Your task to perform on an android device: Open privacy settings Image 0: 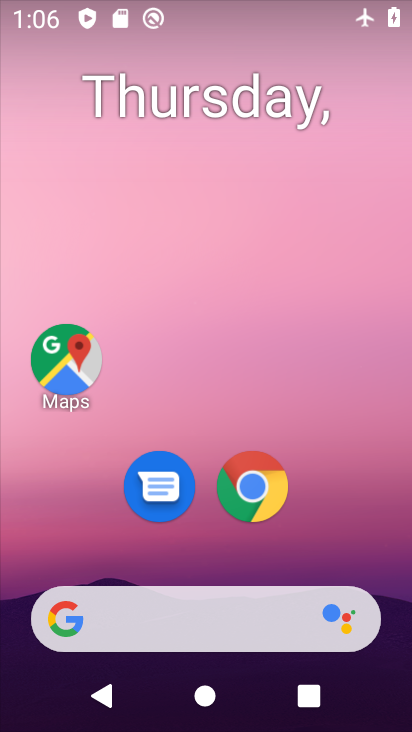
Step 0: drag from (378, 571) to (267, 88)
Your task to perform on an android device: Open privacy settings Image 1: 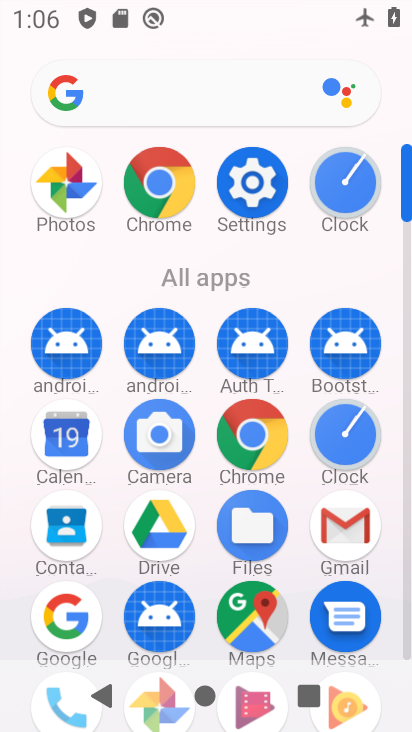
Step 1: click (264, 168)
Your task to perform on an android device: Open privacy settings Image 2: 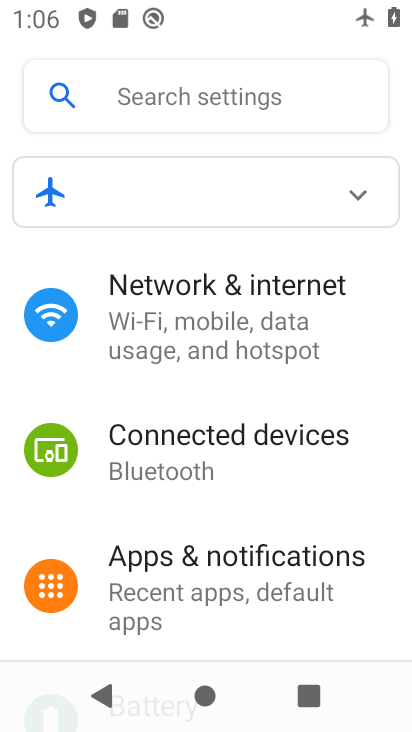
Step 2: drag from (347, 623) to (256, 165)
Your task to perform on an android device: Open privacy settings Image 3: 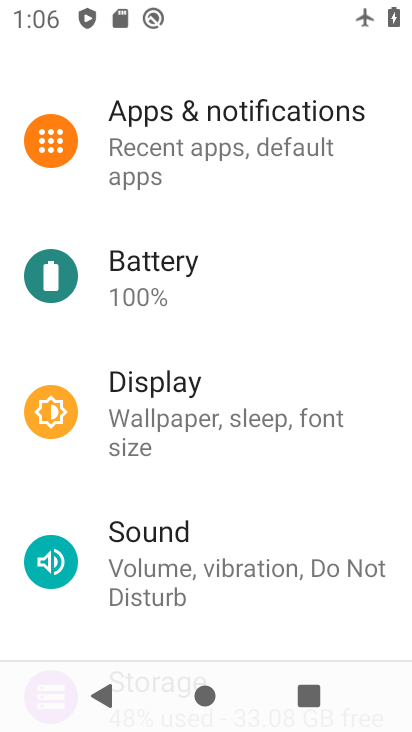
Step 3: drag from (331, 514) to (262, 153)
Your task to perform on an android device: Open privacy settings Image 4: 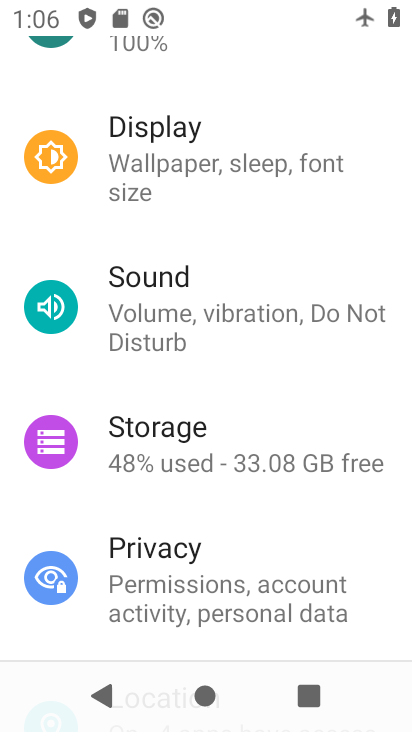
Step 4: click (256, 588)
Your task to perform on an android device: Open privacy settings Image 5: 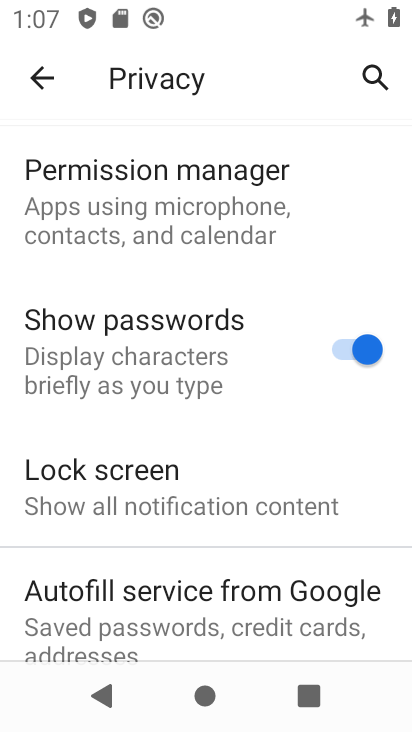
Step 5: task complete